Your task to perform on an android device: turn off wifi Image 0: 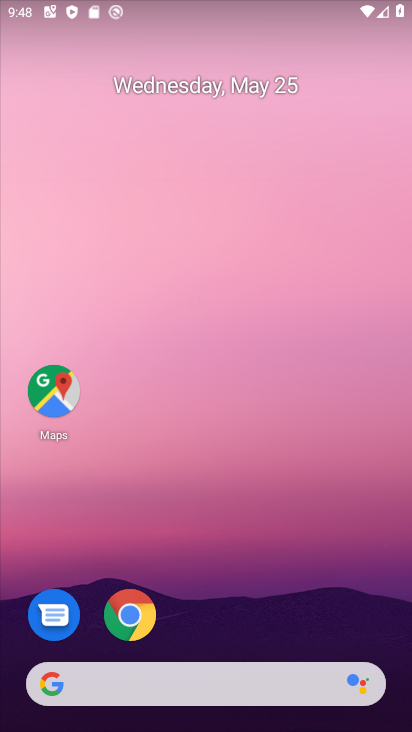
Step 0: drag from (304, 544) to (285, 28)
Your task to perform on an android device: turn off wifi Image 1: 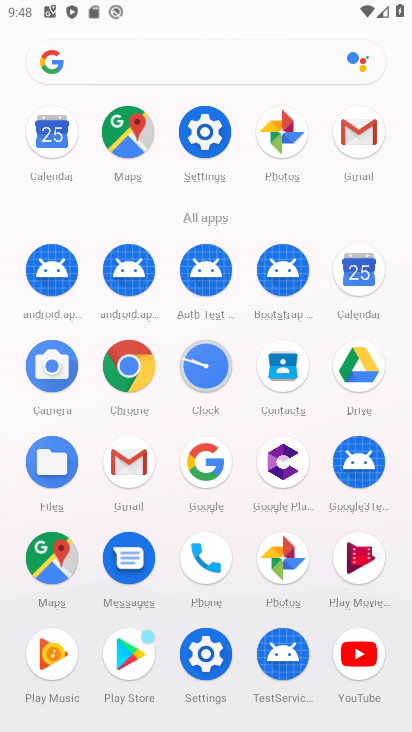
Step 1: click (203, 118)
Your task to perform on an android device: turn off wifi Image 2: 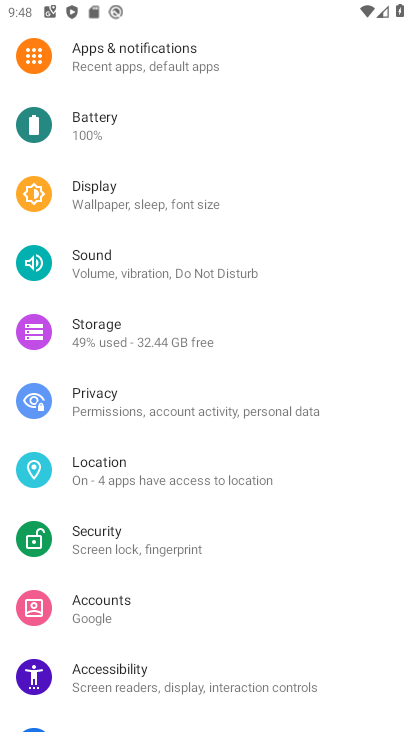
Step 2: drag from (210, 234) to (231, 539)
Your task to perform on an android device: turn off wifi Image 3: 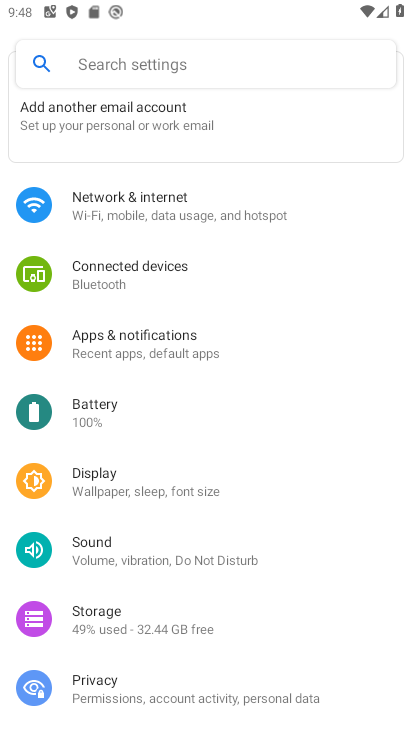
Step 3: click (199, 211)
Your task to perform on an android device: turn off wifi Image 4: 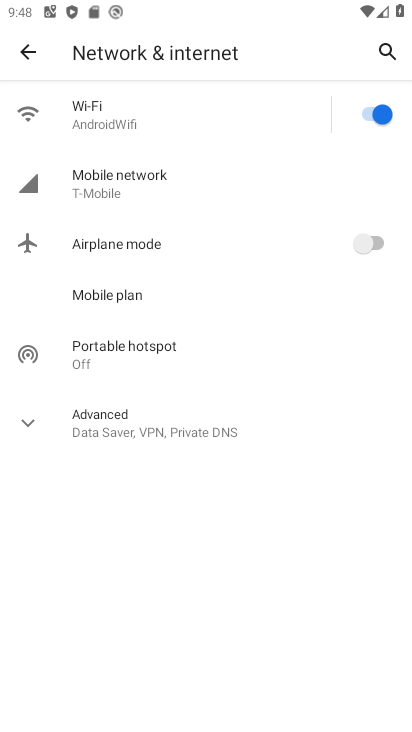
Step 4: click (192, 119)
Your task to perform on an android device: turn off wifi Image 5: 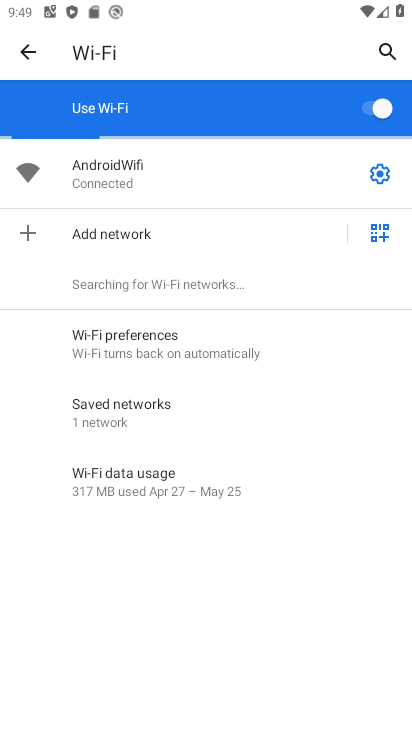
Step 5: click (365, 108)
Your task to perform on an android device: turn off wifi Image 6: 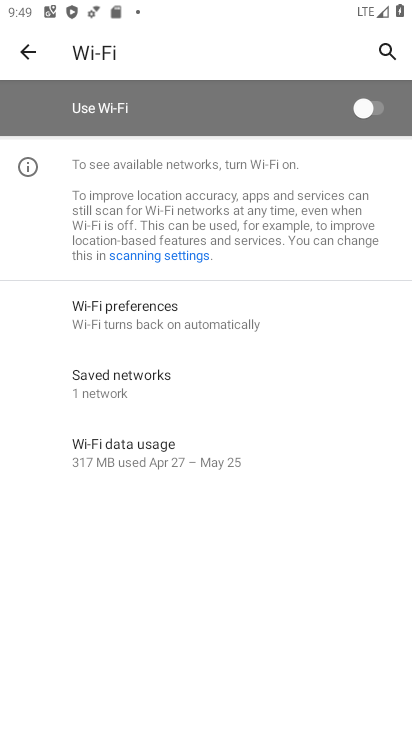
Step 6: task complete